Your task to perform on an android device: toggle translation in the chrome app Image 0: 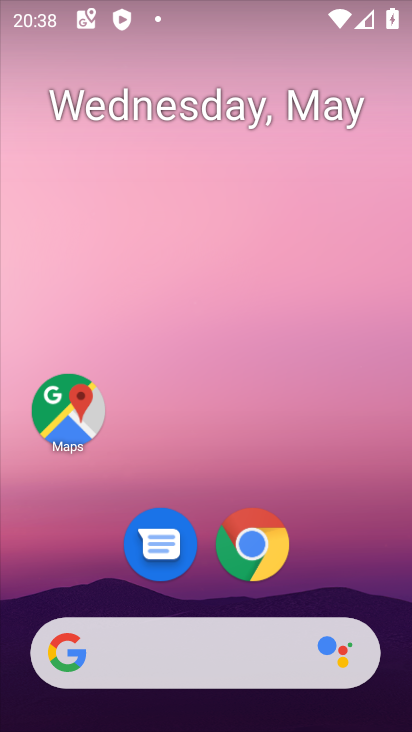
Step 0: click (253, 541)
Your task to perform on an android device: toggle translation in the chrome app Image 1: 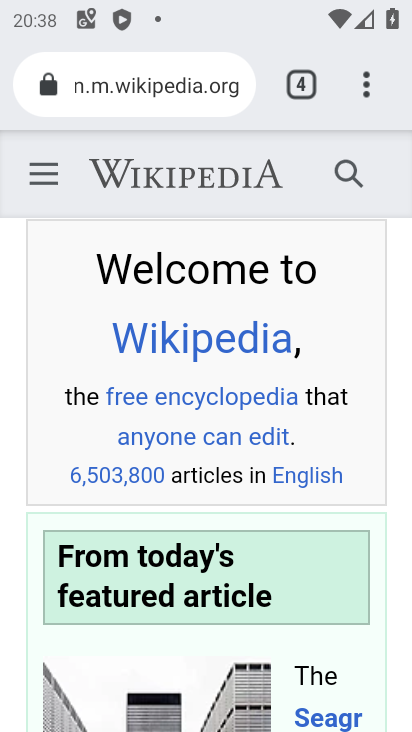
Step 1: click (380, 75)
Your task to perform on an android device: toggle translation in the chrome app Image 2: 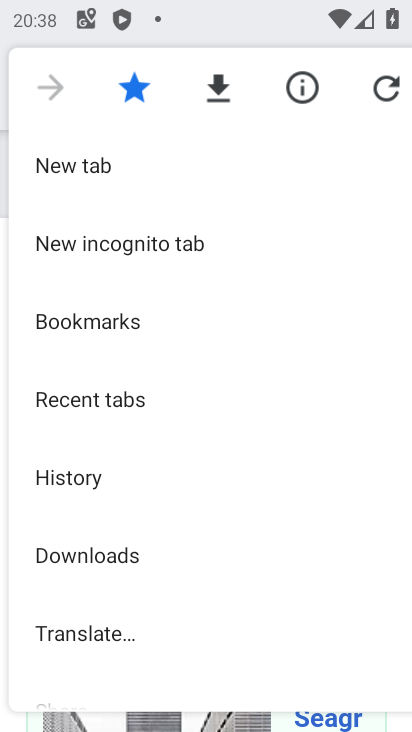
Step 2: drag from (96, 618) to (152, 207)
Your task to perform on an android device: toggle translation in the chrome app Image 3: 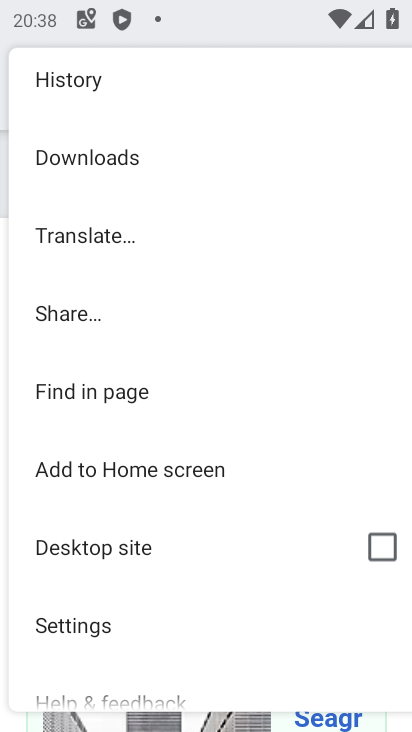
Step 3: click (93, 636)
Your task to perform on an android device: toggle translation in the chrome app Image 4: 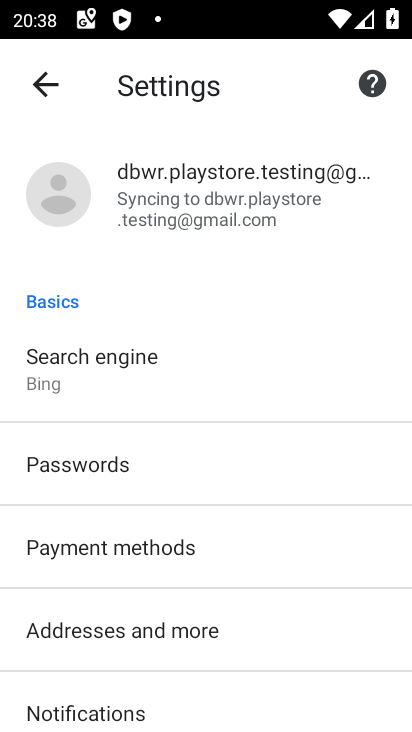
Step 4: drag from (135, 552) to (184, 188)
Your task to perform on an android device: toggle translation in the chrome app Image 5: 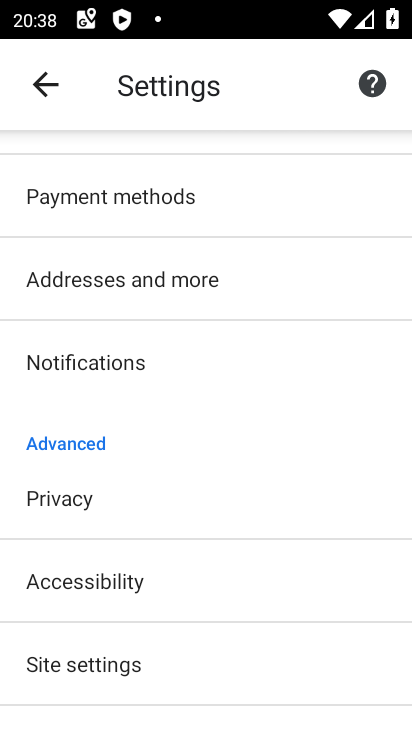
Step 5: click (126, 662)
Your task to perform on an android device: toggle translation in the chrome app Image 6: 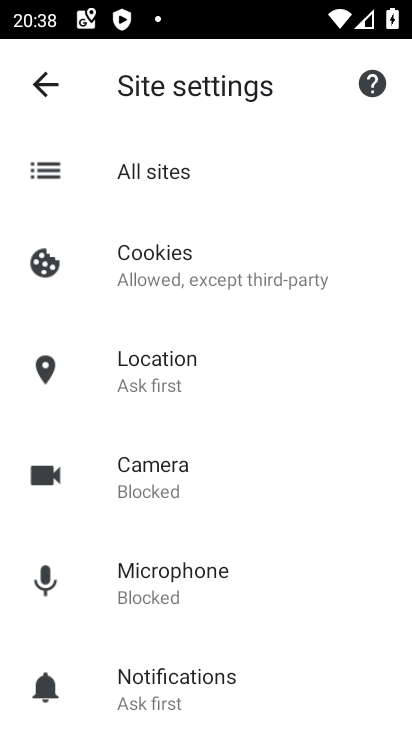
Step 6: drag from (126, 662) to (198, 185)
Your task to perform on an android device: toggle translation in the chrome app Image 7: 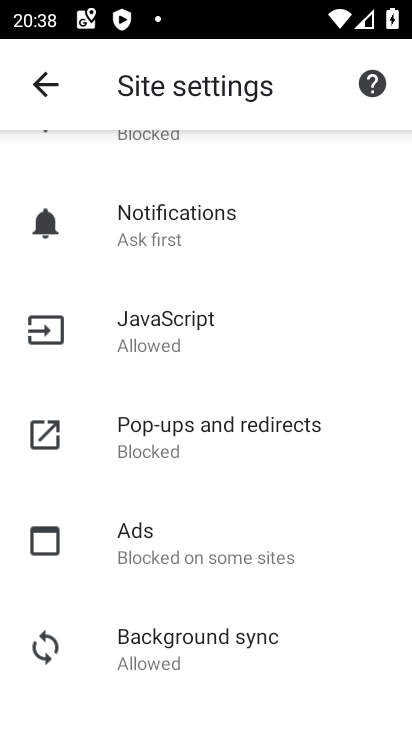
Step 7: drag from (207, 583) to (252, 159)
Your task to perform on an android device: toggle translation in the chrome app Image 8: 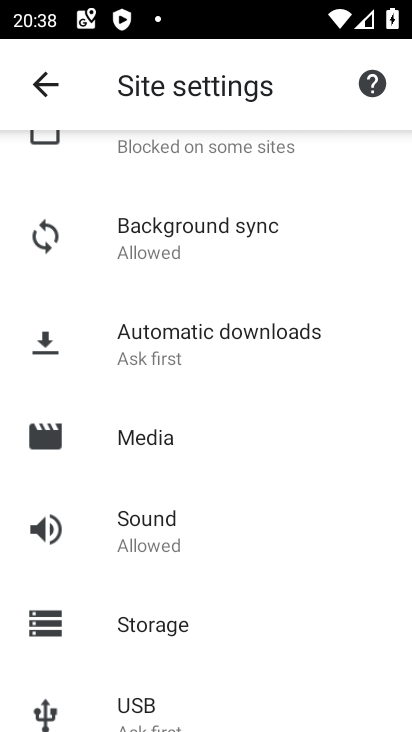
Step 8: drag from (155, 696) to (167, 231)
Your task to perform on an android device: toggle translation in the chrome app Image 9: 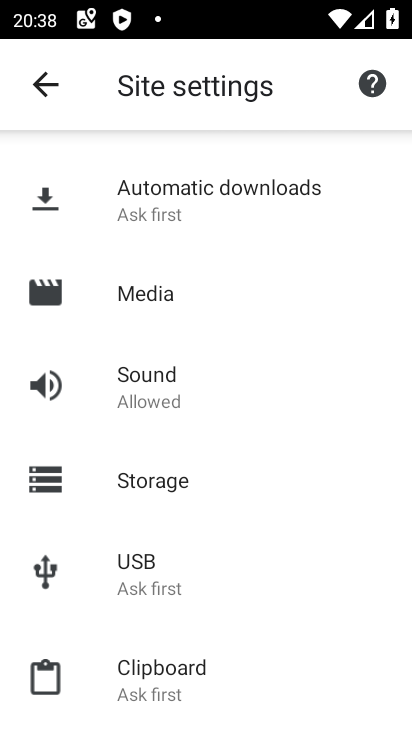
Step 9: click (44, 95)
Your task to perform on an android device: toggle translation in the chrome app Image 10: 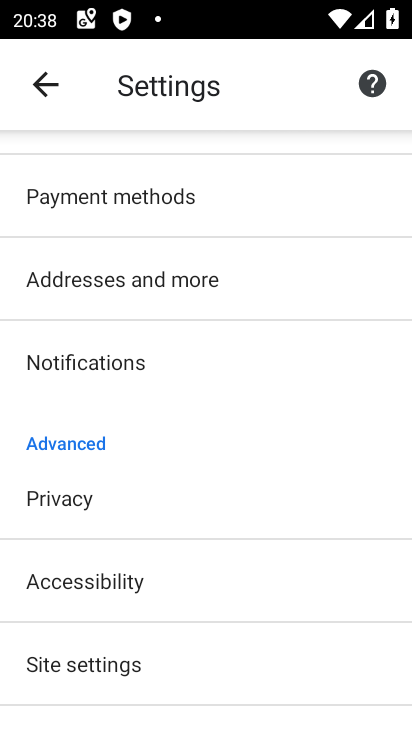
Step 10: drag from (245, 418) to (268, 140)
Your task to perform on an android device: toggle translation in the chrome app Image 11: 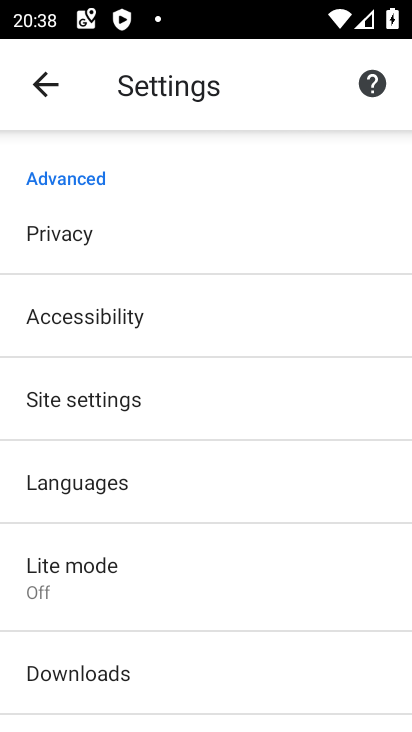
Step 11: click (127, 490)
Your task to perform on an android device: toggle translation in the chrome app Image 12: 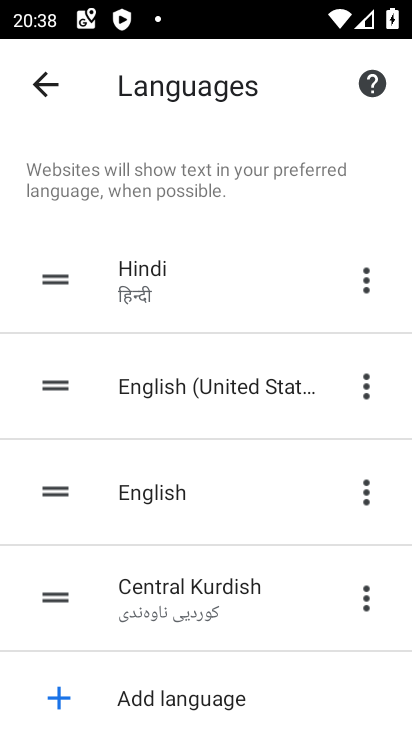
Step 12: drag from (136, 688) to (208, 215)
Your task to perform on an android device: toggle translation in the chrome app Image 13: 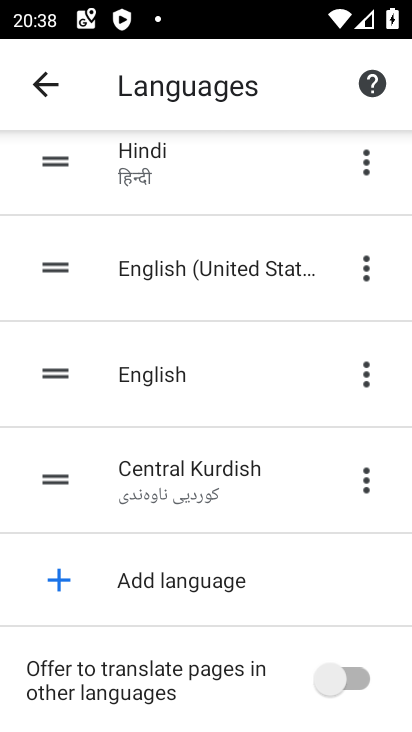
Step 13: click (380, 674)
Your task to perform on an android device: toggle translation in the chrome app Image 14: 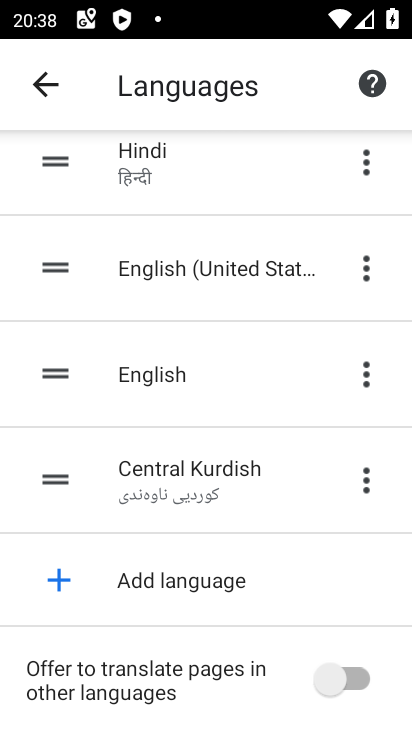
Step 14: click (380, 674)
Your task to perform on an android device: toggle translation in the chrome app Image 15: 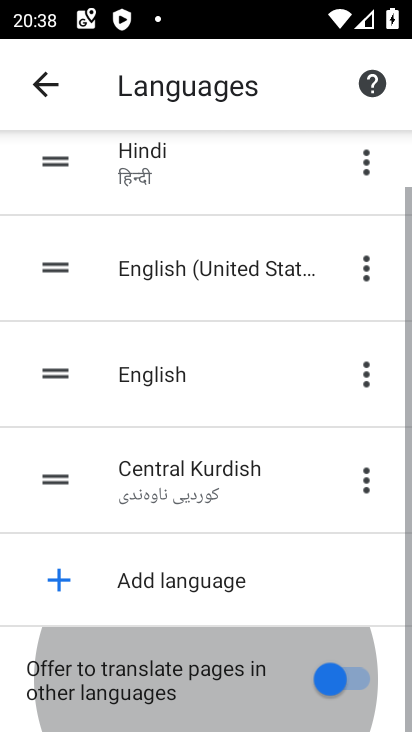
Step 15: click (380, 674)
Your task to perform on an android device: toggle translation in the chrome app Image 16: 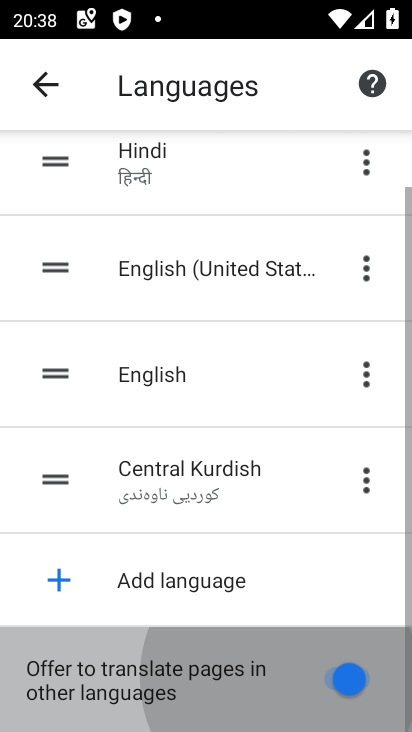
Step 16: click (380, 674)
Your task to perform on an android device: toggle translation in the chrome app Image 17: 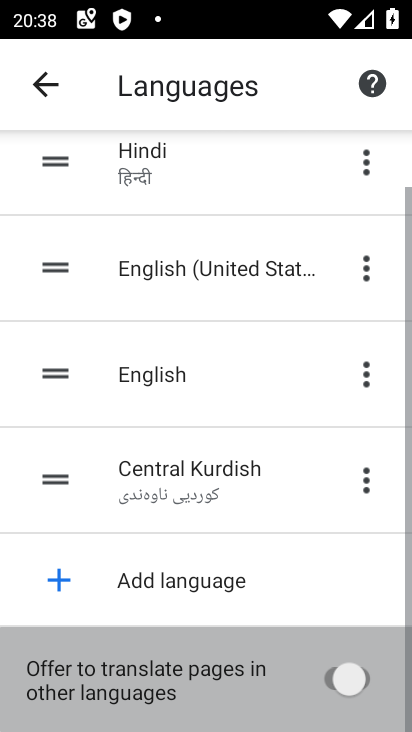
Step 17: click (380, 674)
Your task to perform on an android device: toggle translation in the chrome app Image 18: 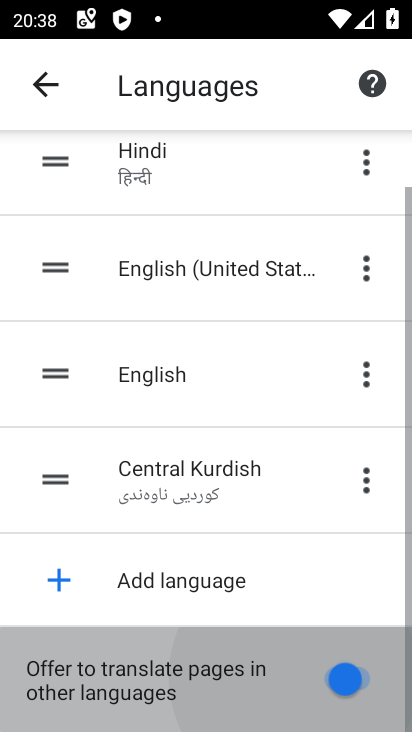
Step 18: click (380, 674)
Your task to perform on an android device: toggle translation in the chrome app Image 19: 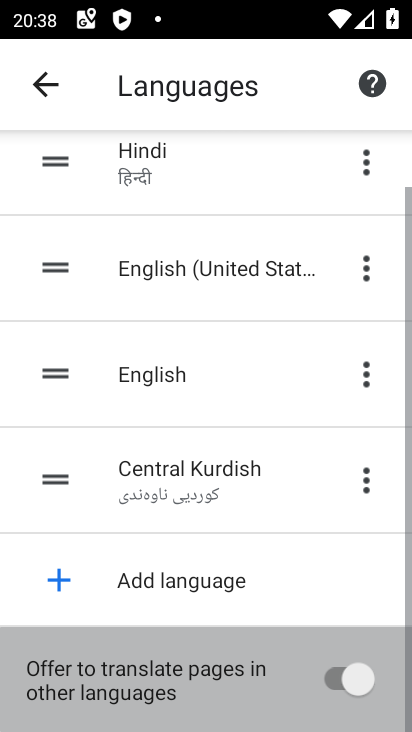
Step 19: click (380, 674)
Your task to perform on an android device: toggle translation in the chrome app Image 20: 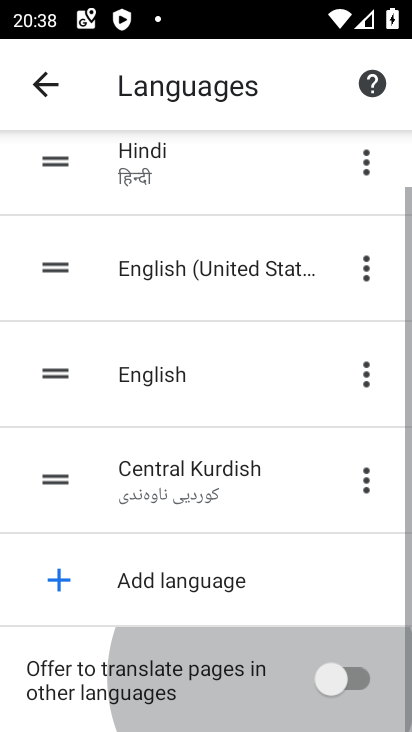
Step 20: click (380, 674)
Your task to perform on an android device: toggle translation in the chrome app Image 21: 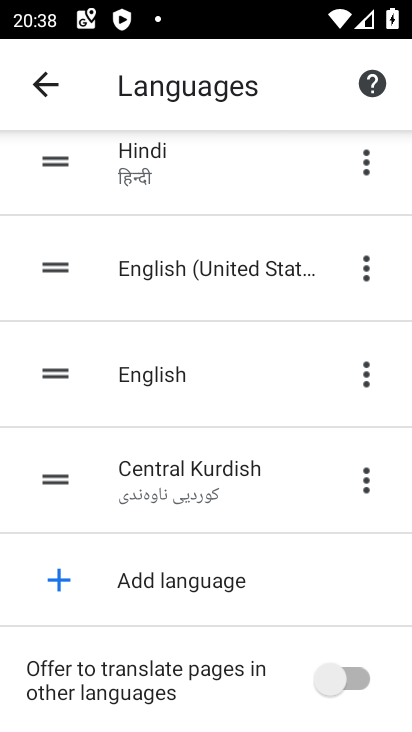
Step 21: task complete